Your task to perform on an android device: Go to Reddit.com Image 0: 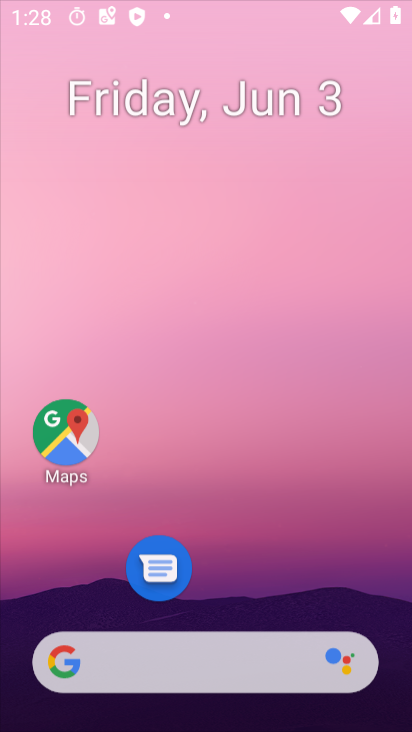
Step 0: click (409, 624)
Your task to perform on an android device: Go to Reddit.com Image 1: 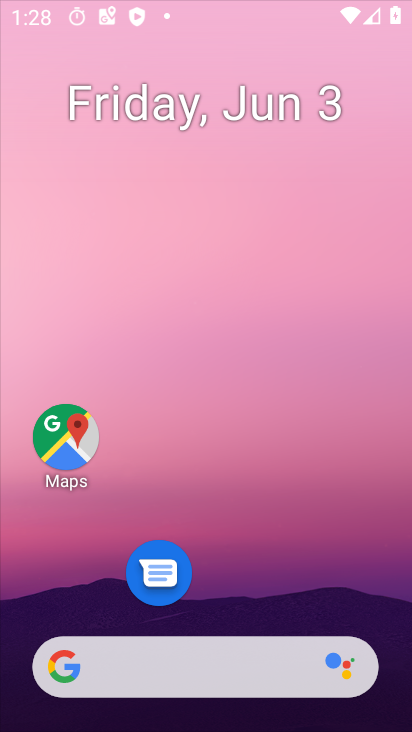
Step 1: drag from (330, 642) to (310, 13)
Your task to perform on an android device: Go to Reddit.com Image 2: 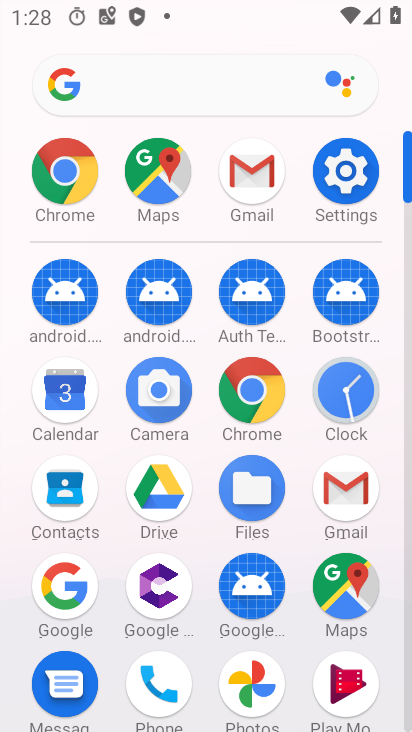
Step 2: click (340, 405)
Your task to perform on an android device: Go to Reddit.com Image 3: 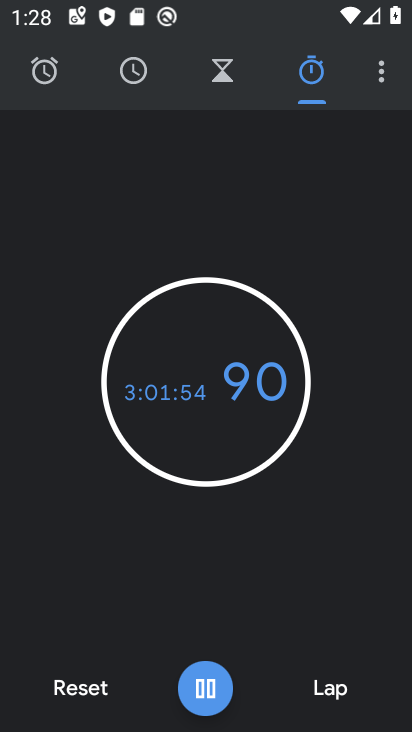
Step 3: task complete